Your task to perform on an android device: Go to battery settings Image 0: 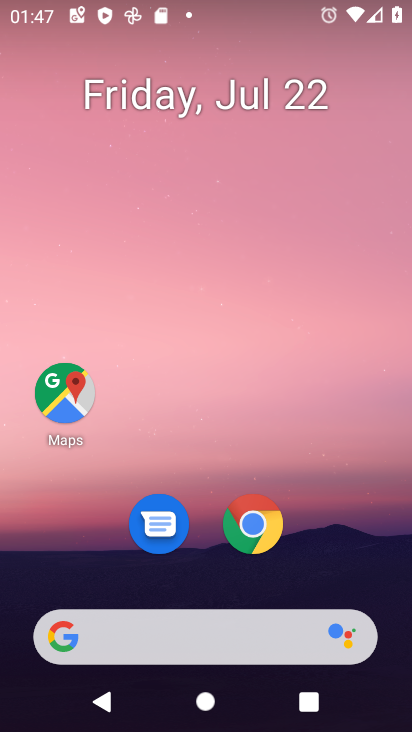
Step 0: press home button
Your task to perform on an android device: Go to battery settings Image 1: 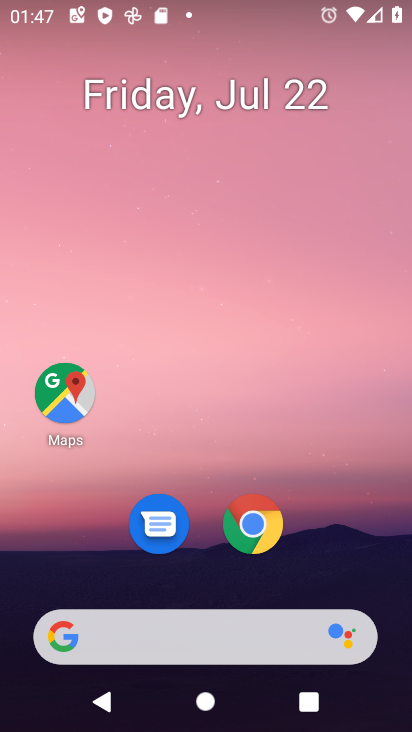
Step 1: drag from (169, 639) to (265, 89)
Your task to perform on an android device: Go to battery settings Image 2: 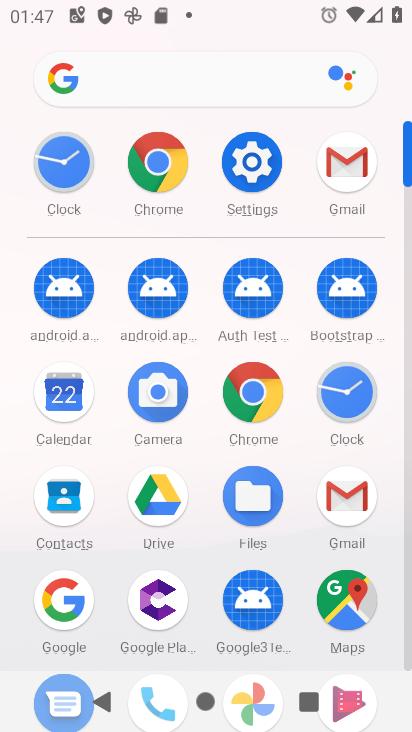
Step 2: click (248, 171)
Your task to perform on an android device: Go to battery settings Image 3: 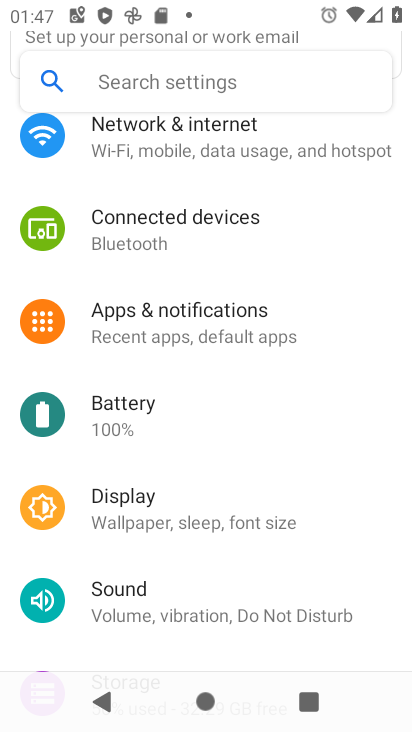
Step 3: click (137, 413)
Your task to perform on an android device: Go to battery settings Image 4: 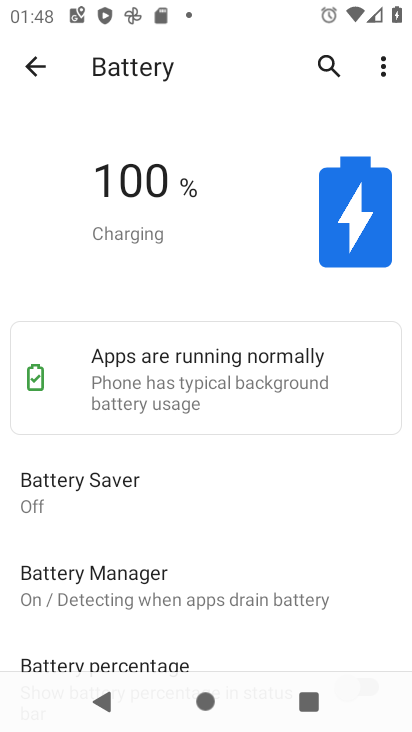
Step 4: task complete